Your task to perform on an android device: make emails show in primary in the gmail app Image 0: 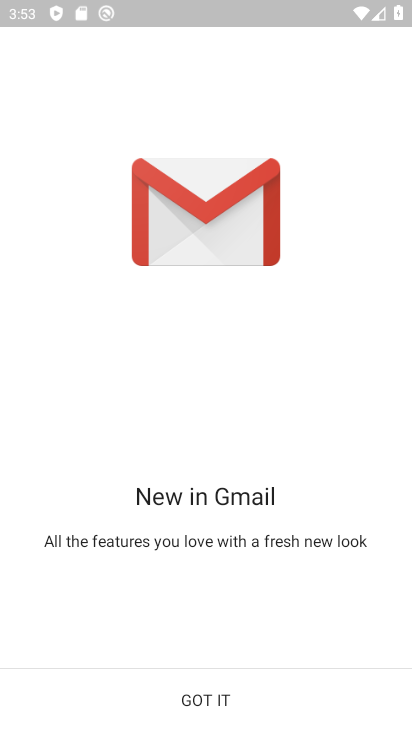
Step 0: press back button
Your task to perform on an android device: make emails show in primary in the gmail app Image 1: 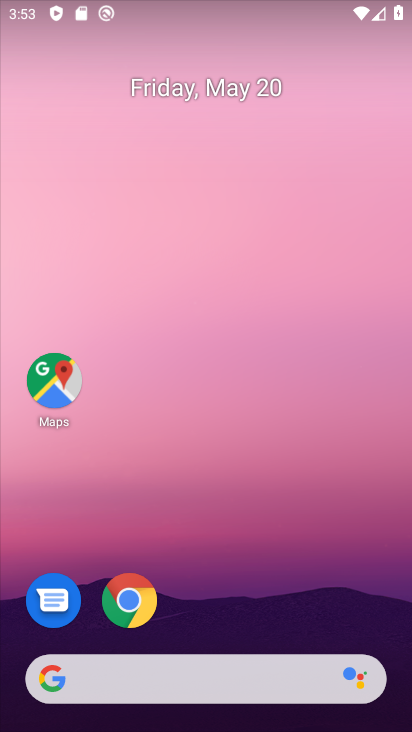
Step 1: drag from (207, 636) to (316, 80)
Your task to perform on an android device: make emails show in primary in the gmail app Image 2: 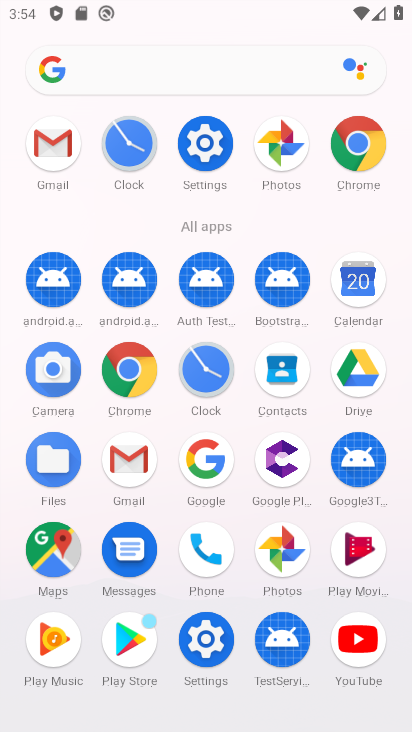
Step 2: click (55, 143)
Your task to perform on an android device: make emails show in primary in the gmail app Image 3: 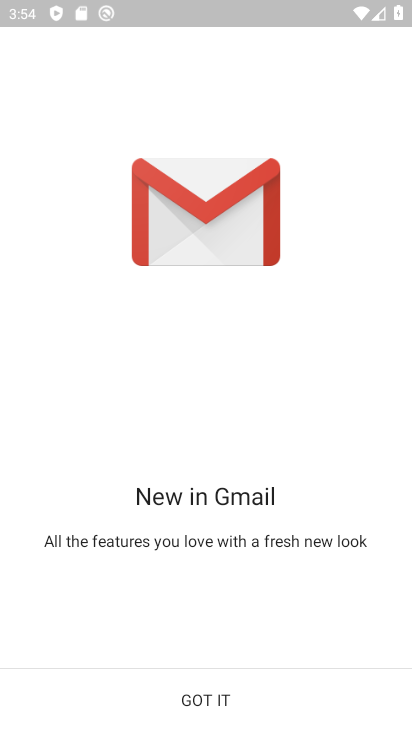
Step 3: click (208, 713)
Your task to perform on an android device: make emails show in primary in the gmail app Image 4: 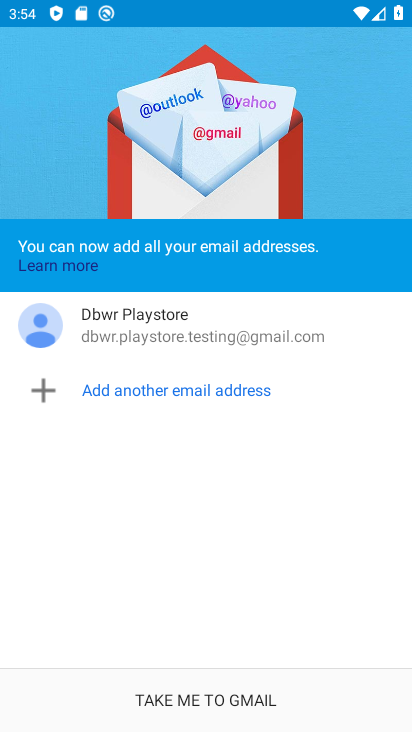
Step 4: click (206, 696)
Your task to perform on an android device: make emails show in primary in the gmail app Image 5: 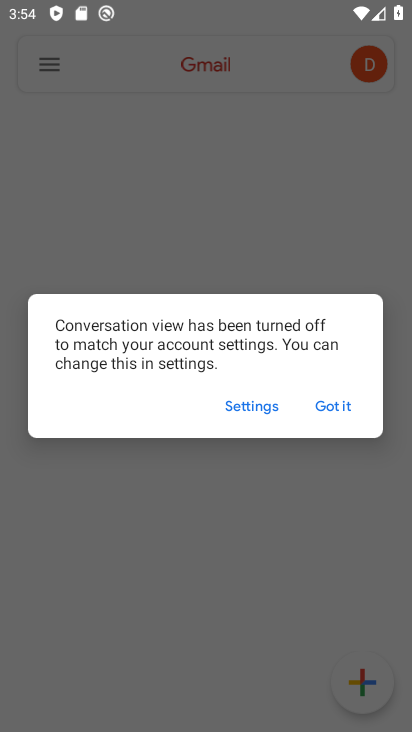
Step 5: click (319, 404)
Your task to perform on an android device: make emails show in primary in the gmail app Image 6: 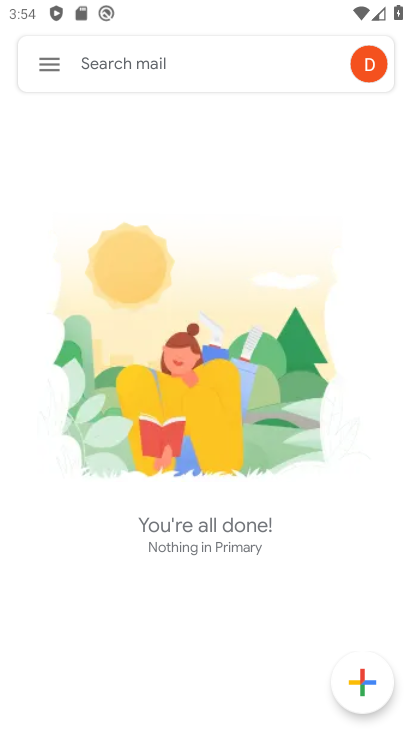
Step 6: click (39, 57)
Your task to perform on an android device: make emails show in primary in the gmail app Image 7: 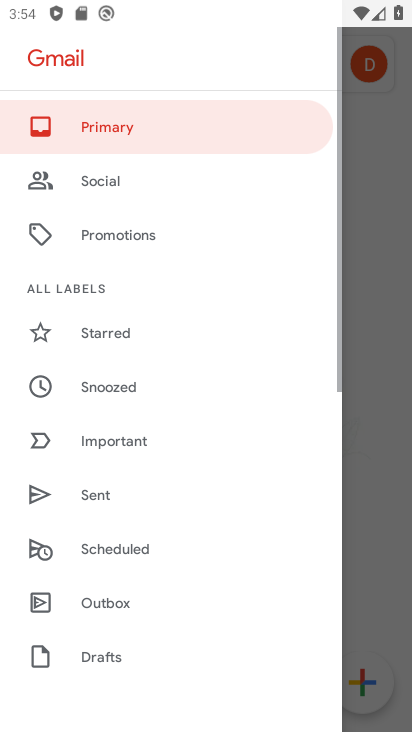
Step 7: drag from (115, 641) to (190, 110)
Your task to perform on an android device: make emails show in primary in the gmail app Image 8: 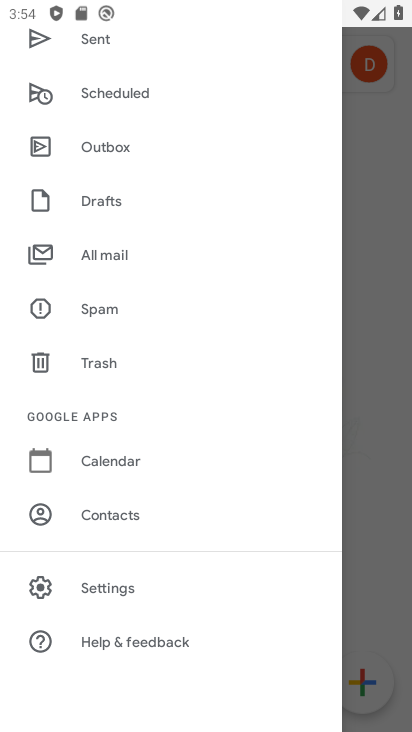
Step 8: click (123, 584)
Your task to perform on an android device: make emails show in primary in the gmail app Image 9: 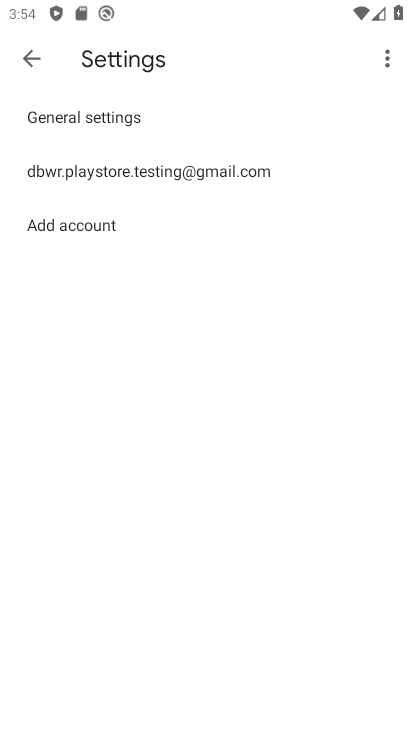
Step 9: click (74, 174)
Your task to perform on an android device: make emails show in primary in the gmail app Image 10: 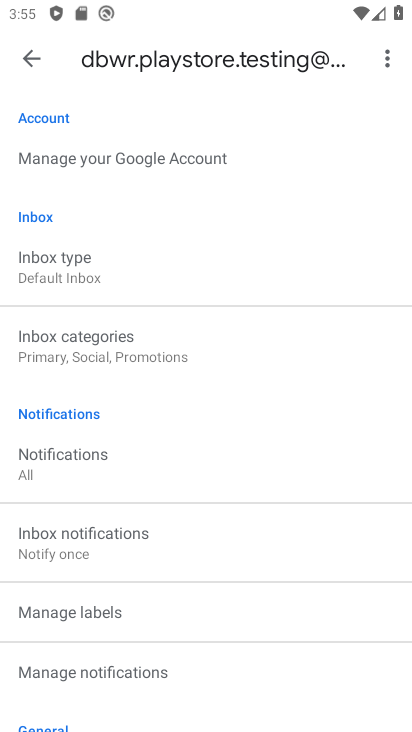
Step 10: click (87, 347)
Your task to perform on an android device: make emails show in primary in the gmail app Image 11: 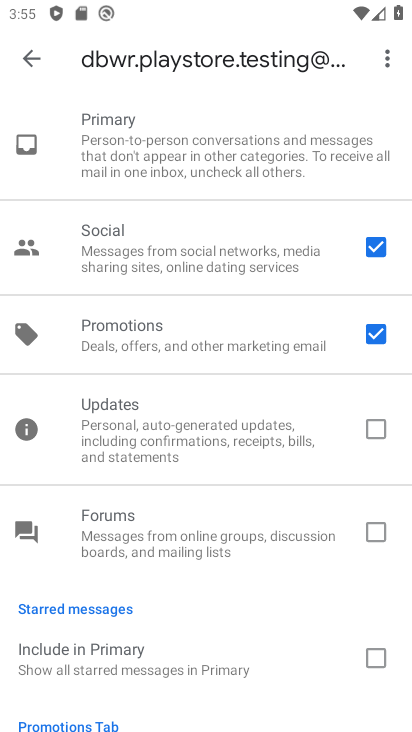
Step 11: drag from (215, 658) to (240, 469)
Your task to perform on an android device: make emails show in primary in the gmail app Image 12: 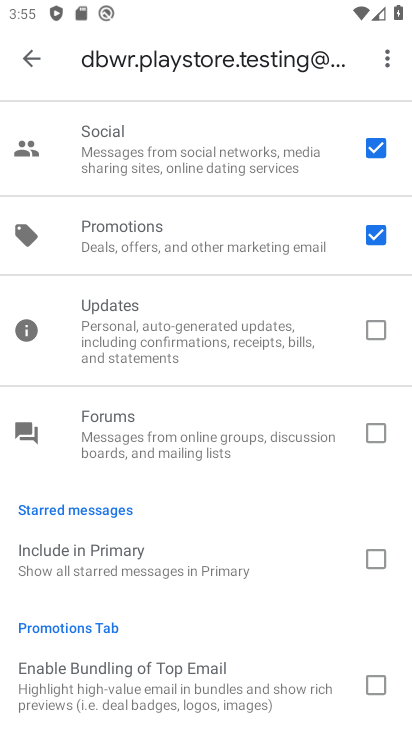
Step 12: click (376, 557)
Your task to perform on an android device: make emails show in primary in the gmail app Image 13: 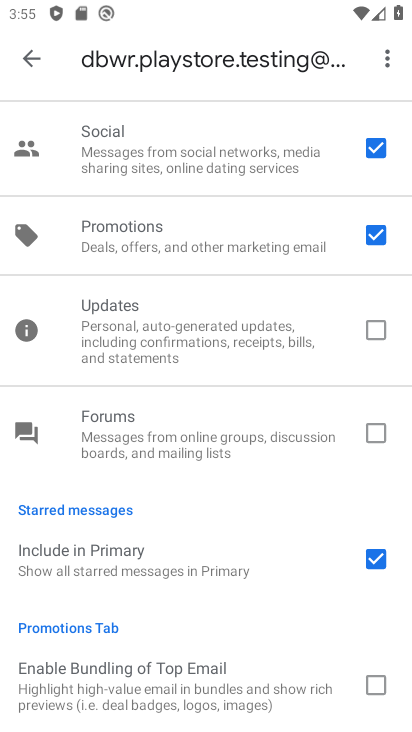
Step 13: task complete